Your task to perform on an android device: Go to Maps Image 0: 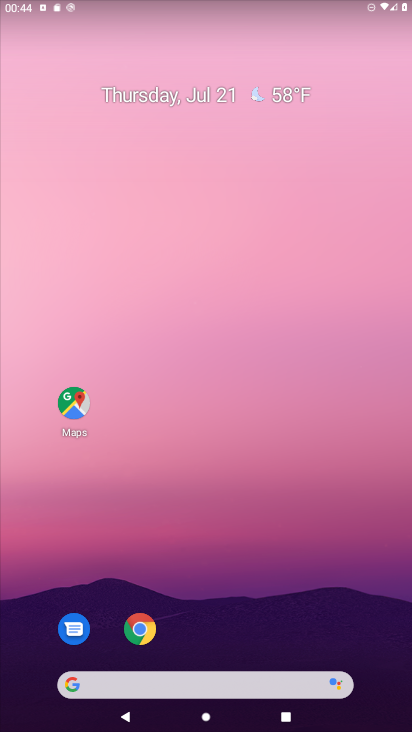
Step 0: click (75, 408)
Your task to perform on an android device: Go to Maps Image 1: 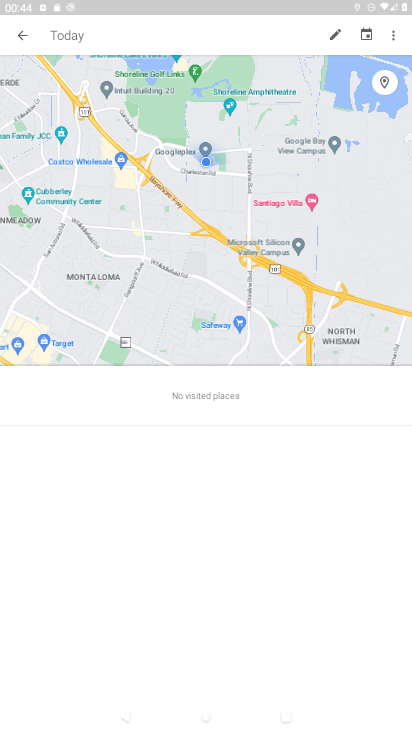
Step 1: task complete